Your task to perform on an android device: Show me recent news Image 0: 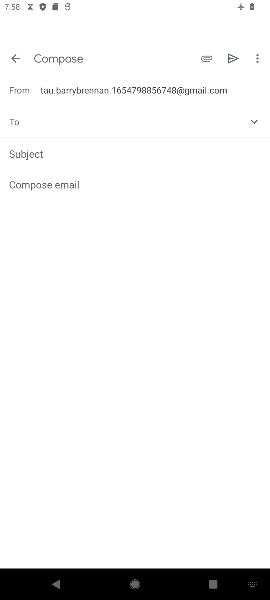
Step 0: press home button
Your task to perform on an android device: Show me recent news Image 1: 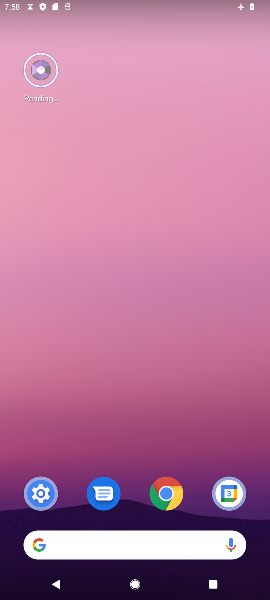
Step 1: drag from (112, 474) to (177, 81)
Your task to perform on an android device: Show me recent news Image 2: 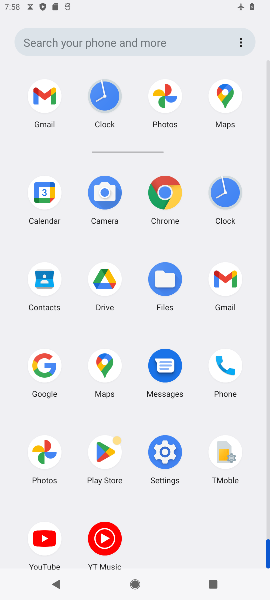
Step 2: click (174, 190)
Your task to perform on an android device: Show me recent news Image 3: 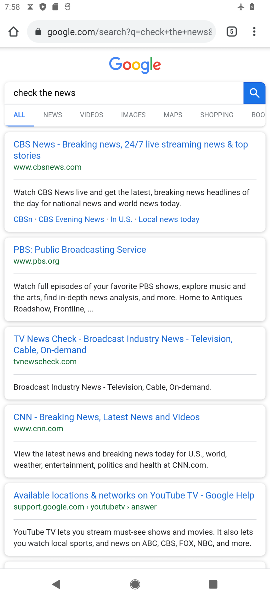
Step 3: click (257, 29)
Your task to perform on an android device: Show me recent news Image 4: 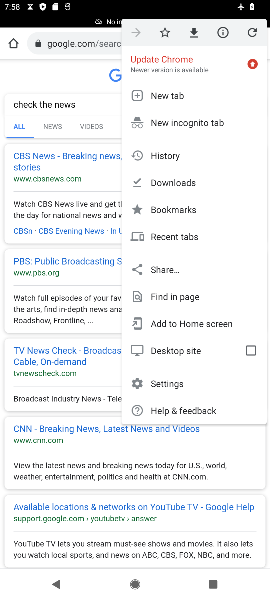
Step 4: click (175, 92)
Your task to perform on an android device: Show me recent news Image 5: 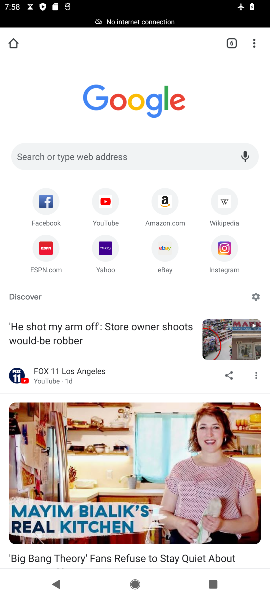
Step 5: click (102, 154)
Your task to perform on an android device: Show me recent news Image 6: 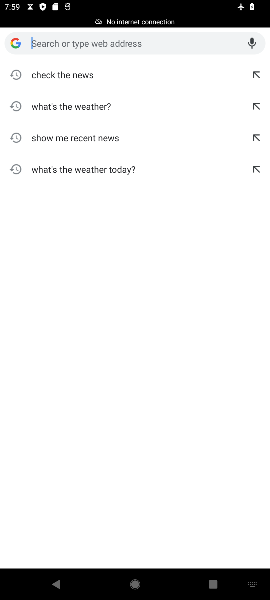
Step 6: type "Show me recent news "
Your task to perform on an android device: Show me recent news Image 7: 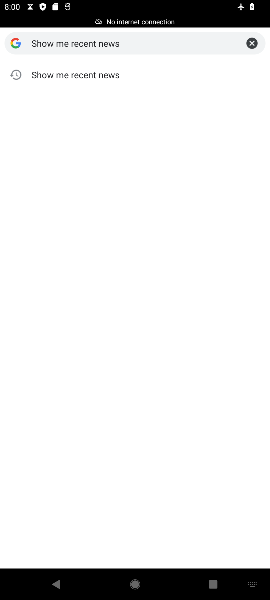
Step 7: click (121, 69)
Your task to perform on an android device: Show me recent news Image 8: 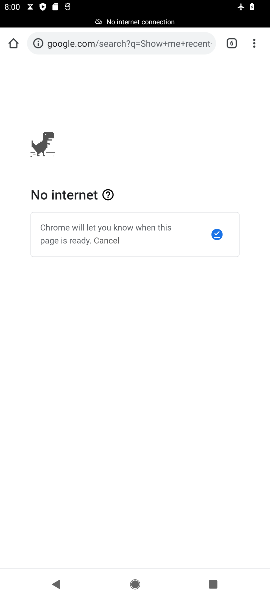
Step 8: task complete